Your task to perform on an android device: find snoozed emails in the gmail app Image 0: 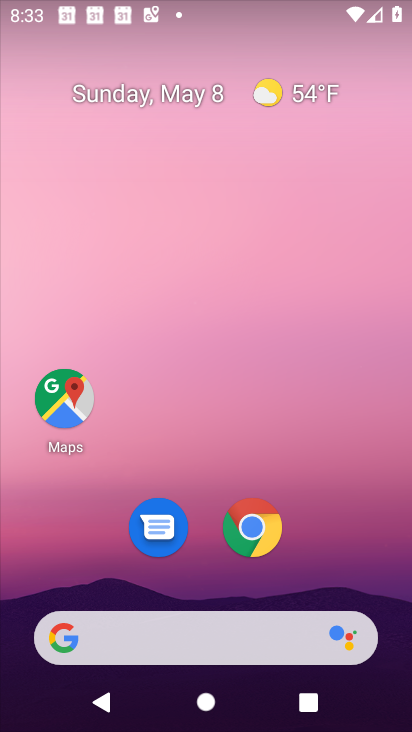
Step 0: drag from (292, 335) to (264, 79)
Your task to perform on an android device: find snoozed emails in the gmail app Image 1: 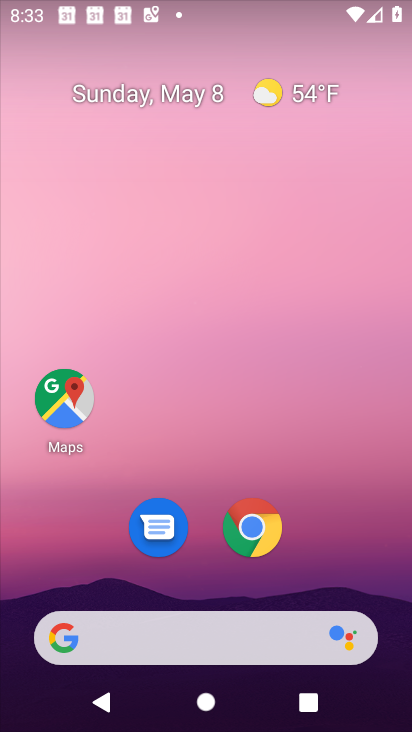
Step 1: drag from (323, 581) to (228, 1)
Your task to perform on an android device: find snoozed emails in the gmail app Image 2: 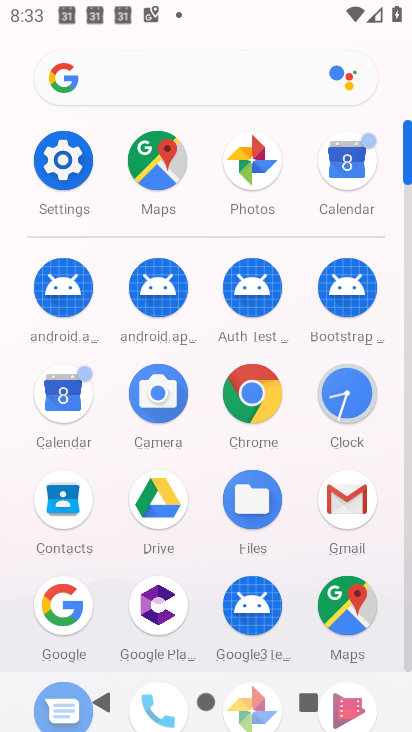
Step 2: click (345, 502)
Your task to perform on an android device: find snoozed emails in the gmail app Image 3: 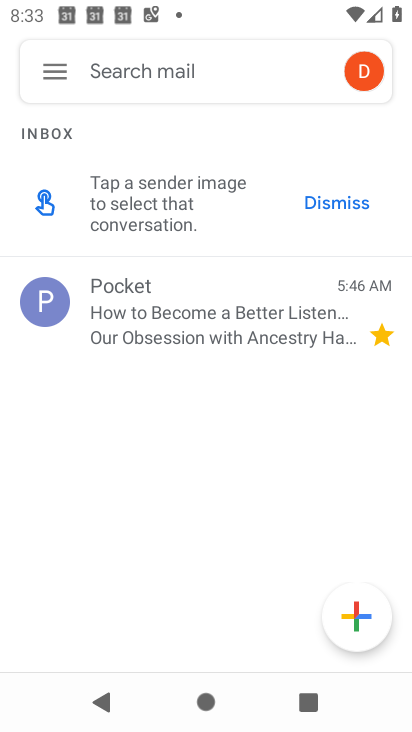
Step 3: click (57, 72)
Your task to perform on an android device: find snoozed emails in the gmail app Image 4: 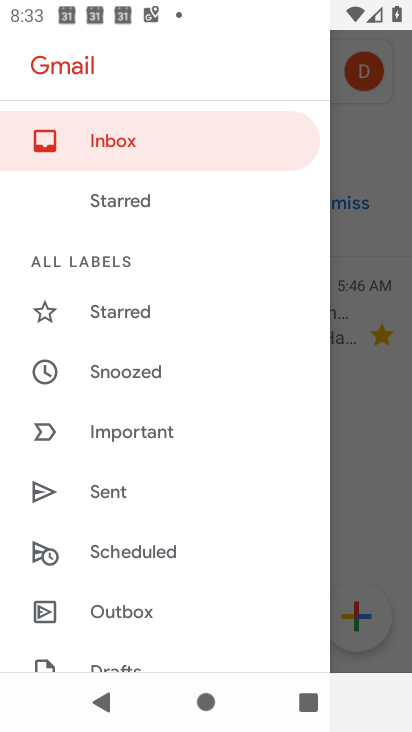
Step 4: click (117, 370)
Your task to perform on an android device: find snoozed emails in the gmail app Image 5: 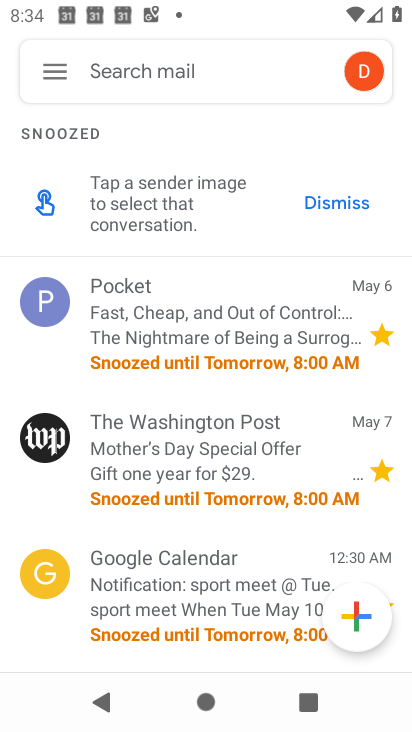
Step 5: task complete